Your task to perform on an android device: show emergency info Image 0: 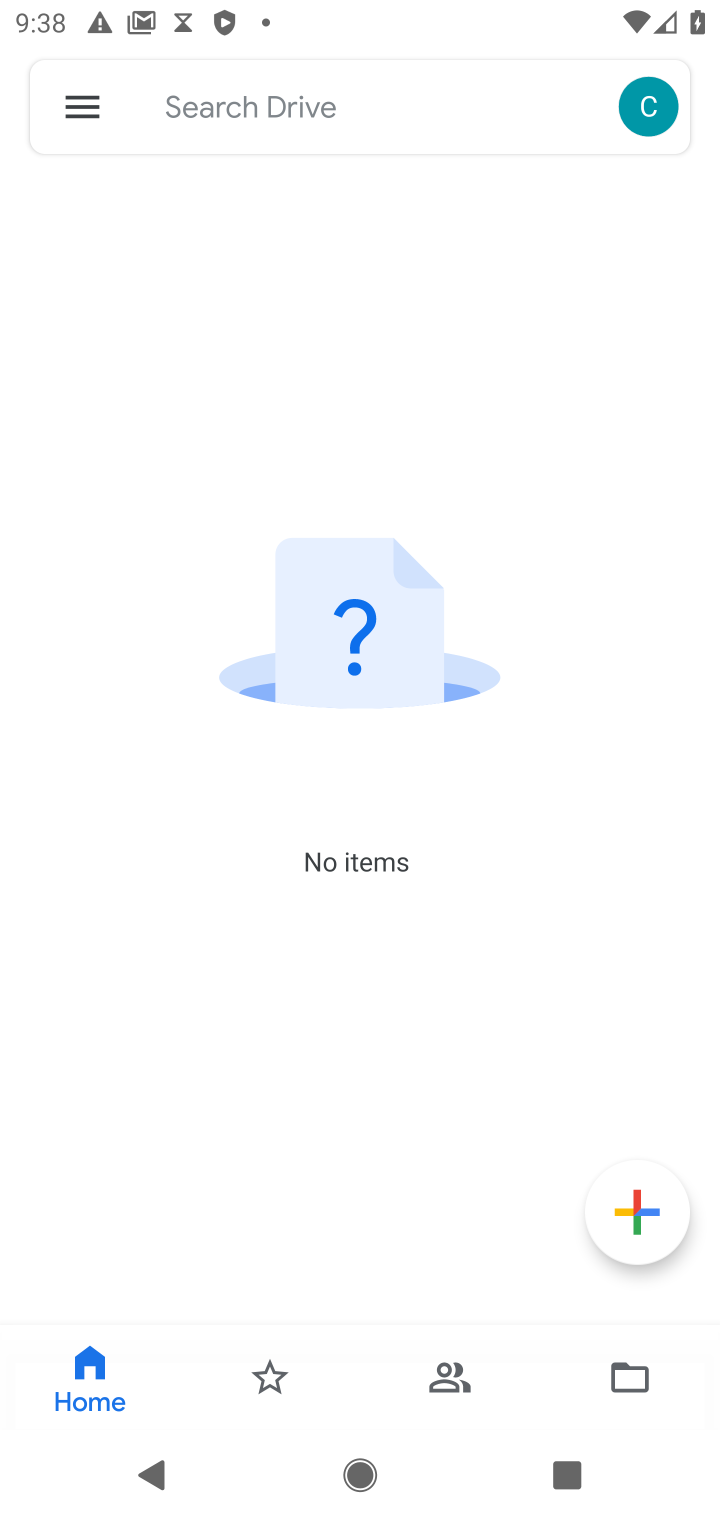
Step 0: press back button
Your task to perform on an android device: show emergency info Image 1: 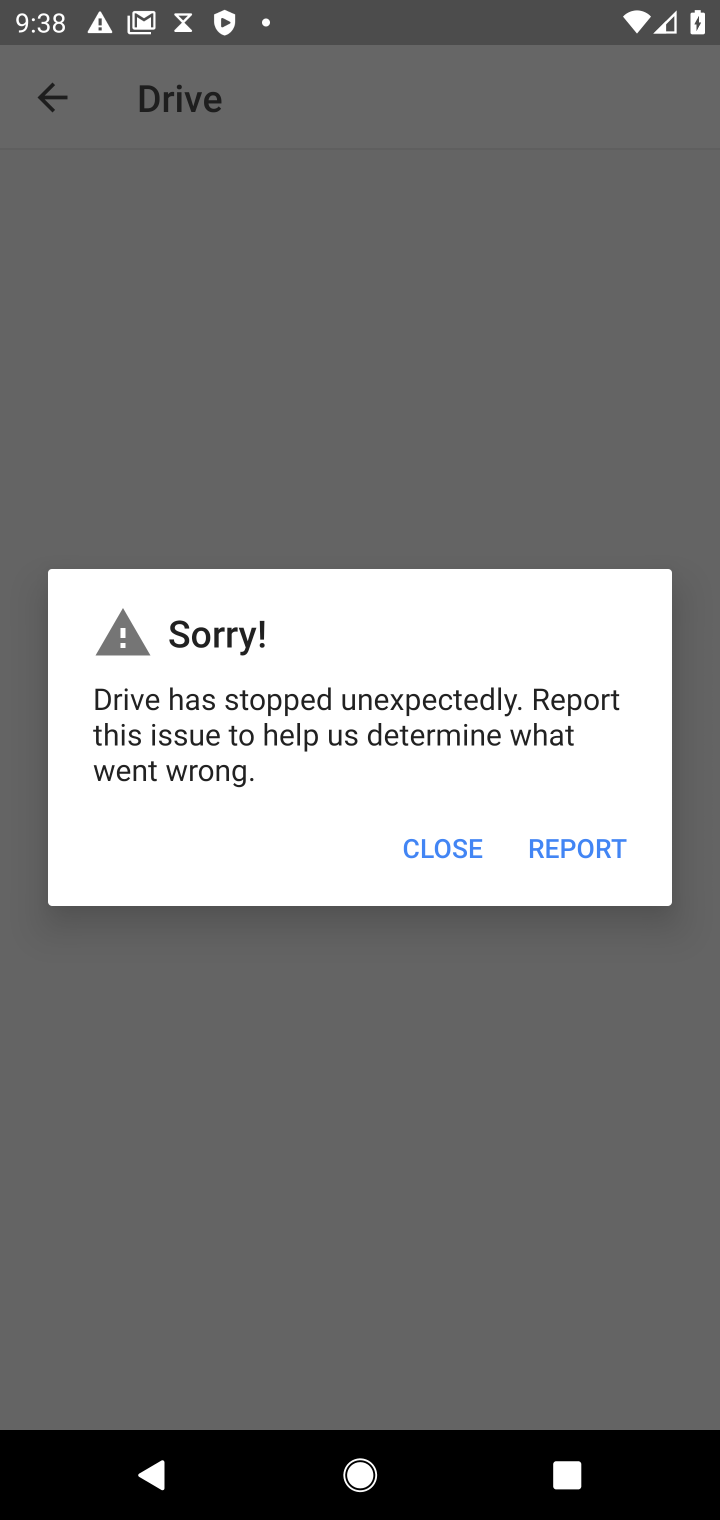
Step 1: press home button
Your task to perform on an android device: show emergency info Image 2: 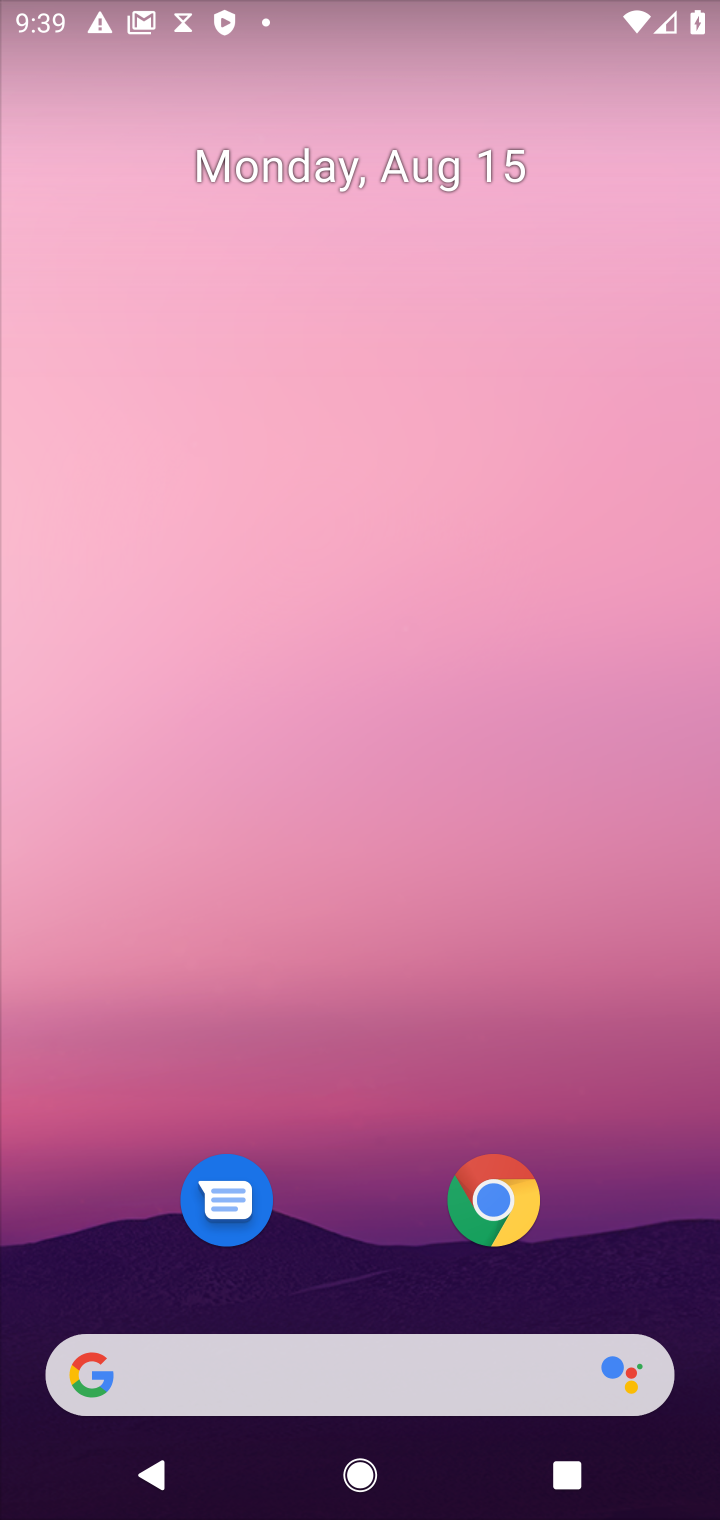
Step 2: drag from (357, 906) to (357, 63)
Your task to perform on an android device: show emergency info Image 3: 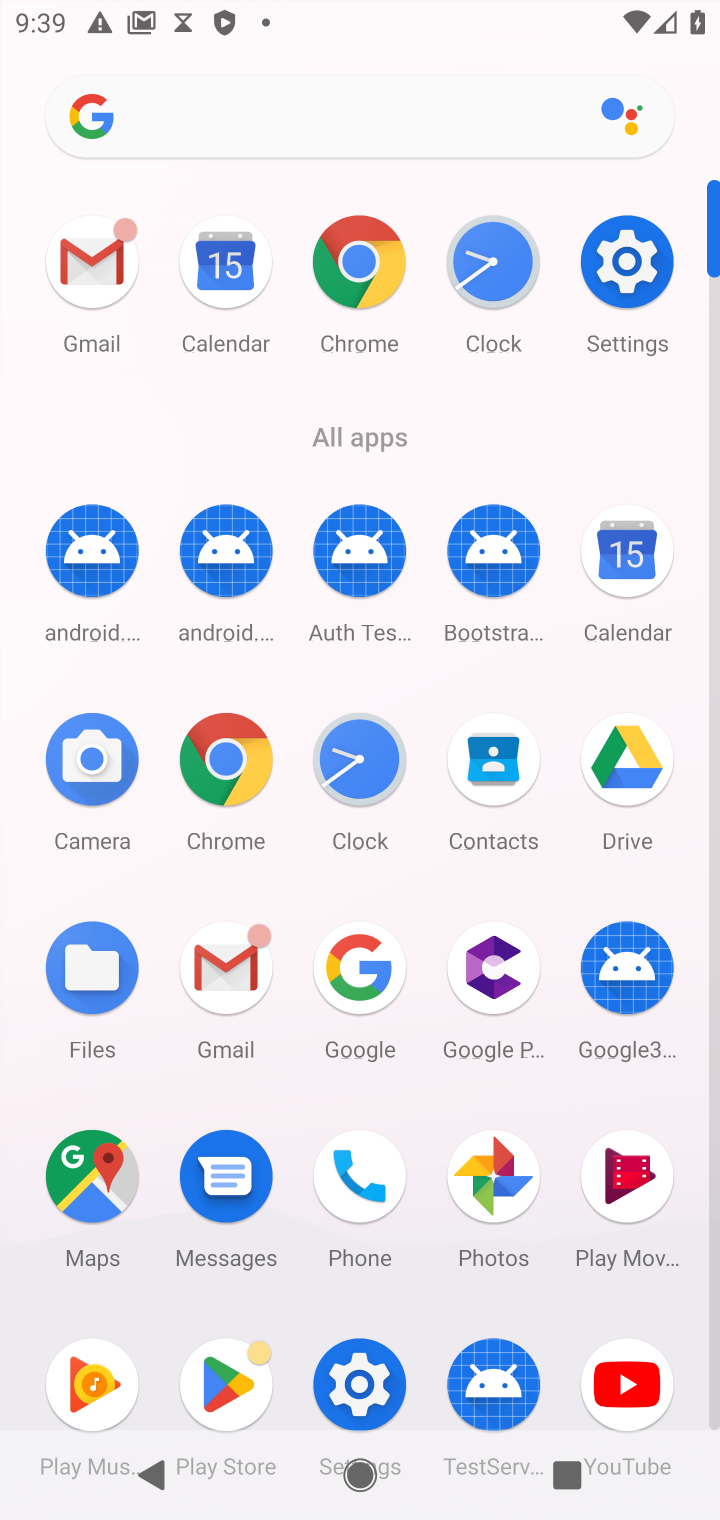
Step 3: click (604, 284)
Your task to perform on an android device: show emergency info Image 4: 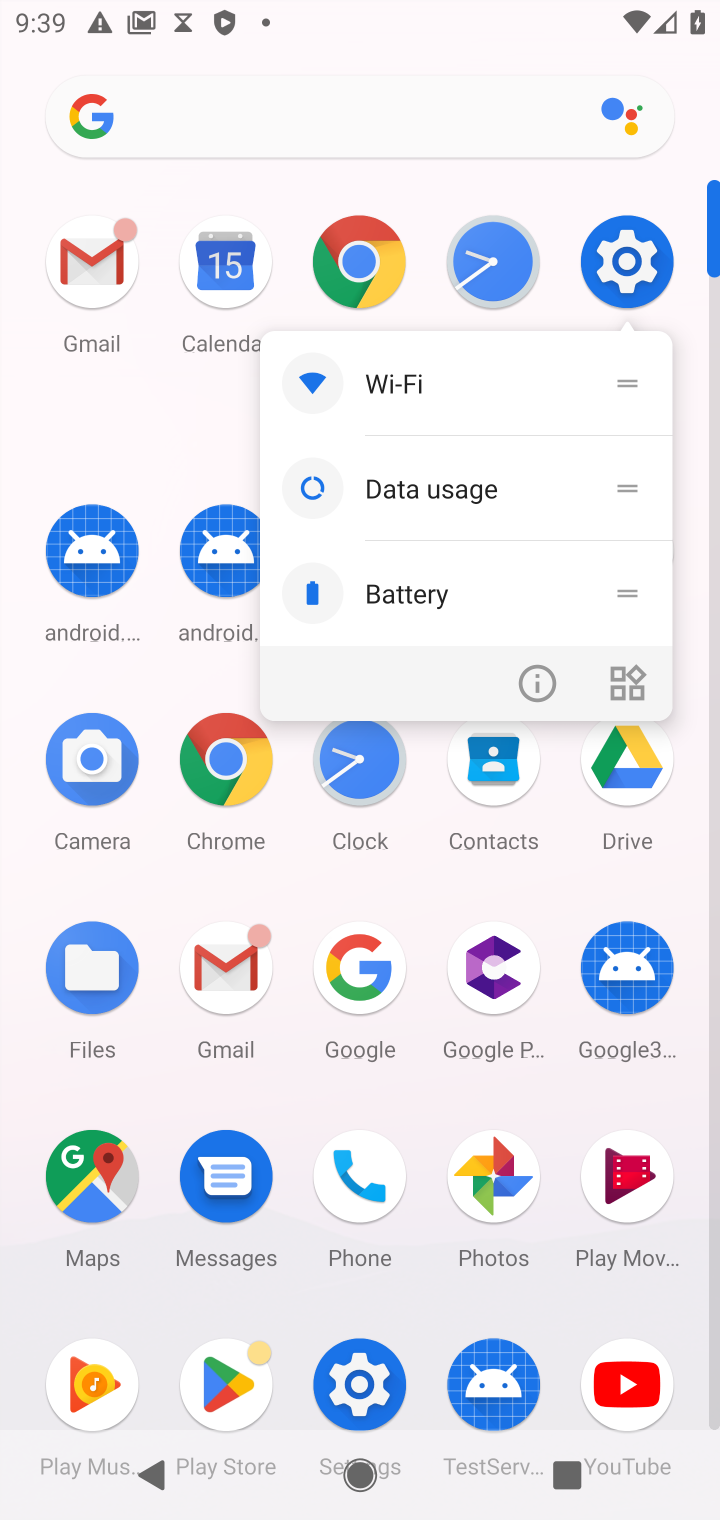
Step 4: click (604, 284)
Your task to perform on an android device: show emergency info Image 5: 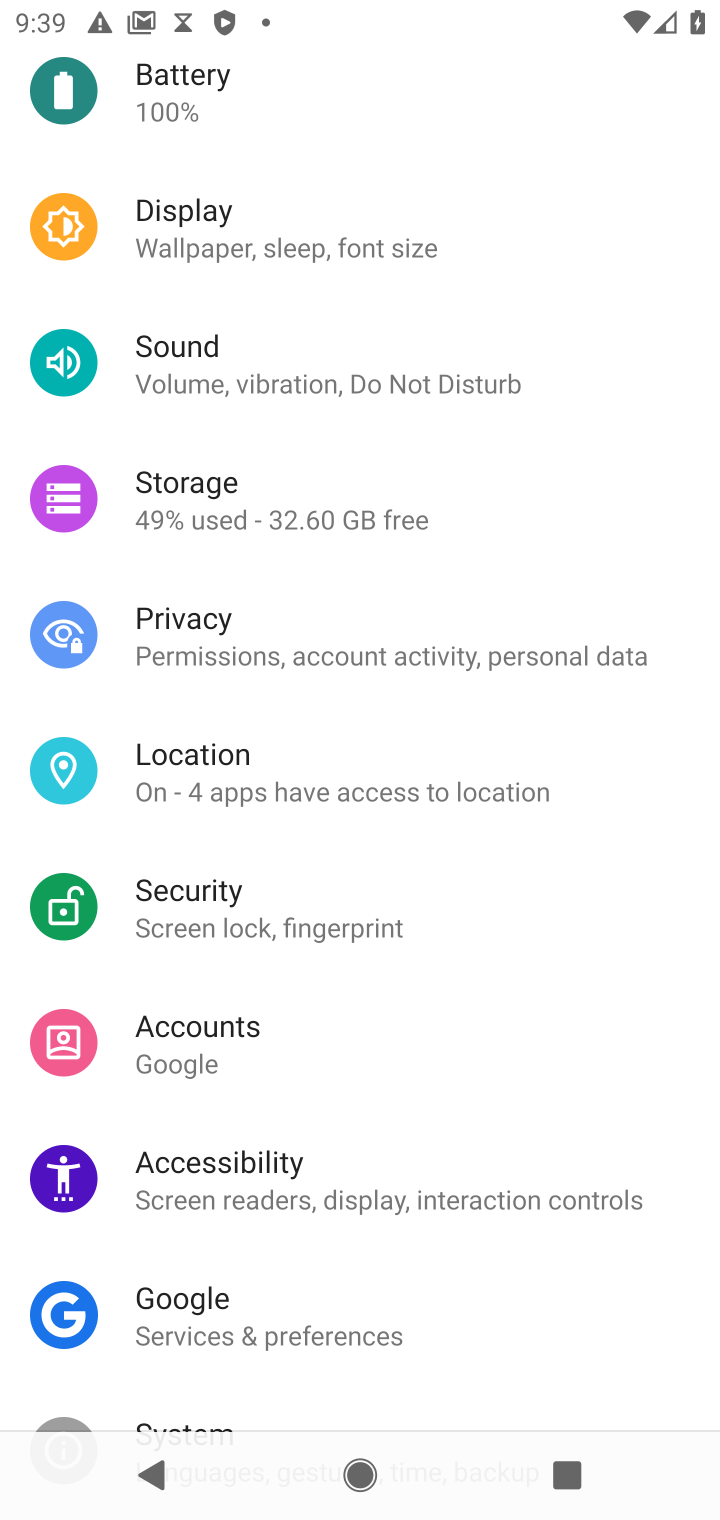
Step 5: drag from (361, 1261) to (366, 161)
Your task to perform on an android device: show emergency info Image 6: 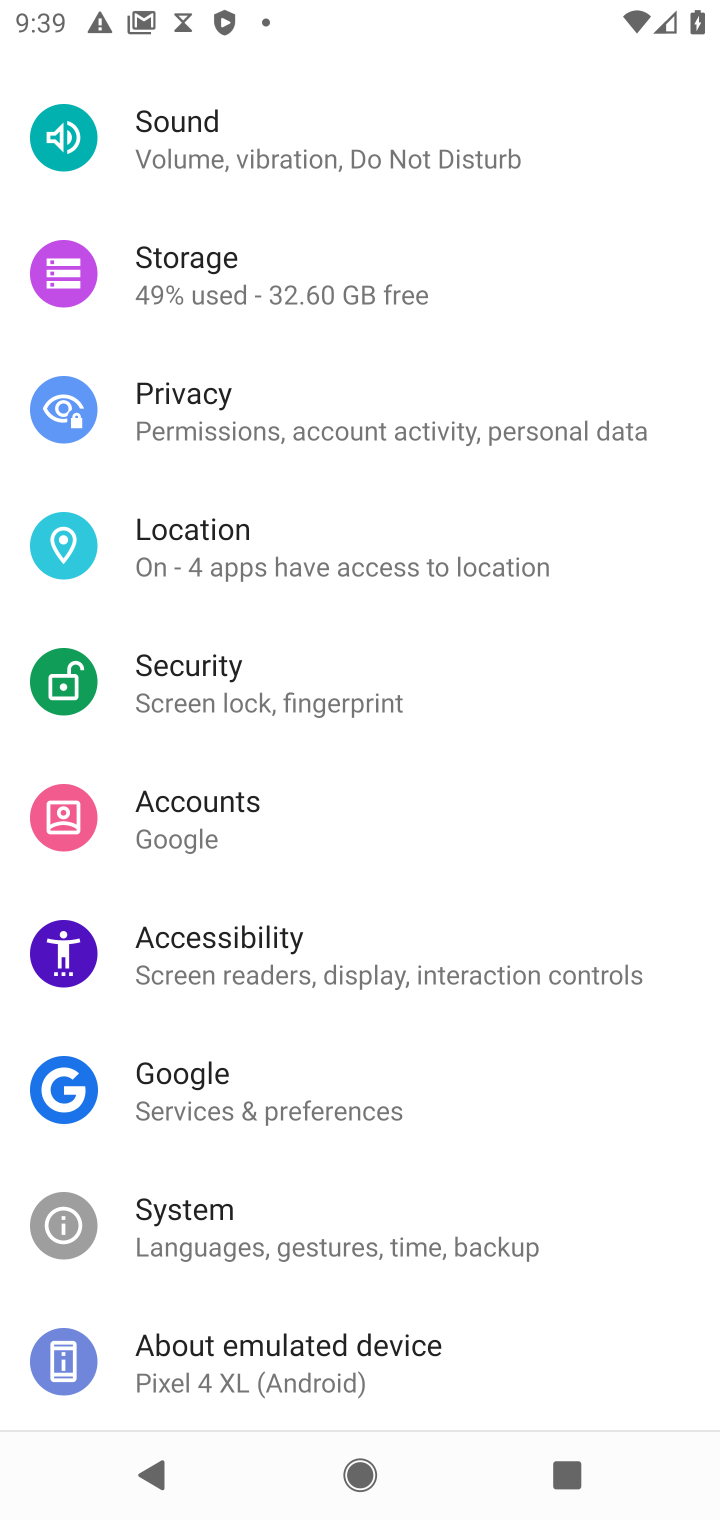
Step 6: drag from (401, 1245) to (368, 427)
Your task to perform on an android device: show emergency info Image 7: 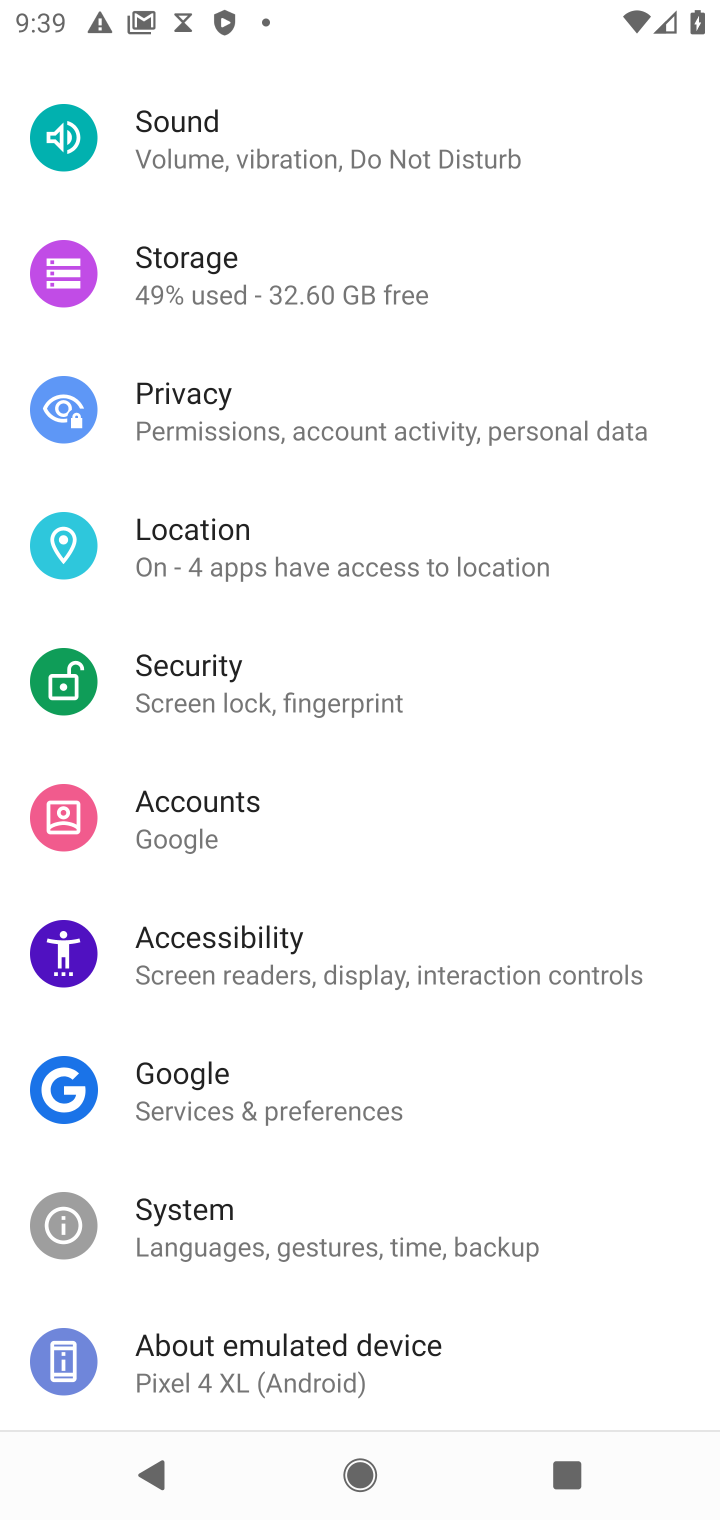
Step 7: click (419, 1339)
Your task to perform on an android device: show emergency info Image 8: 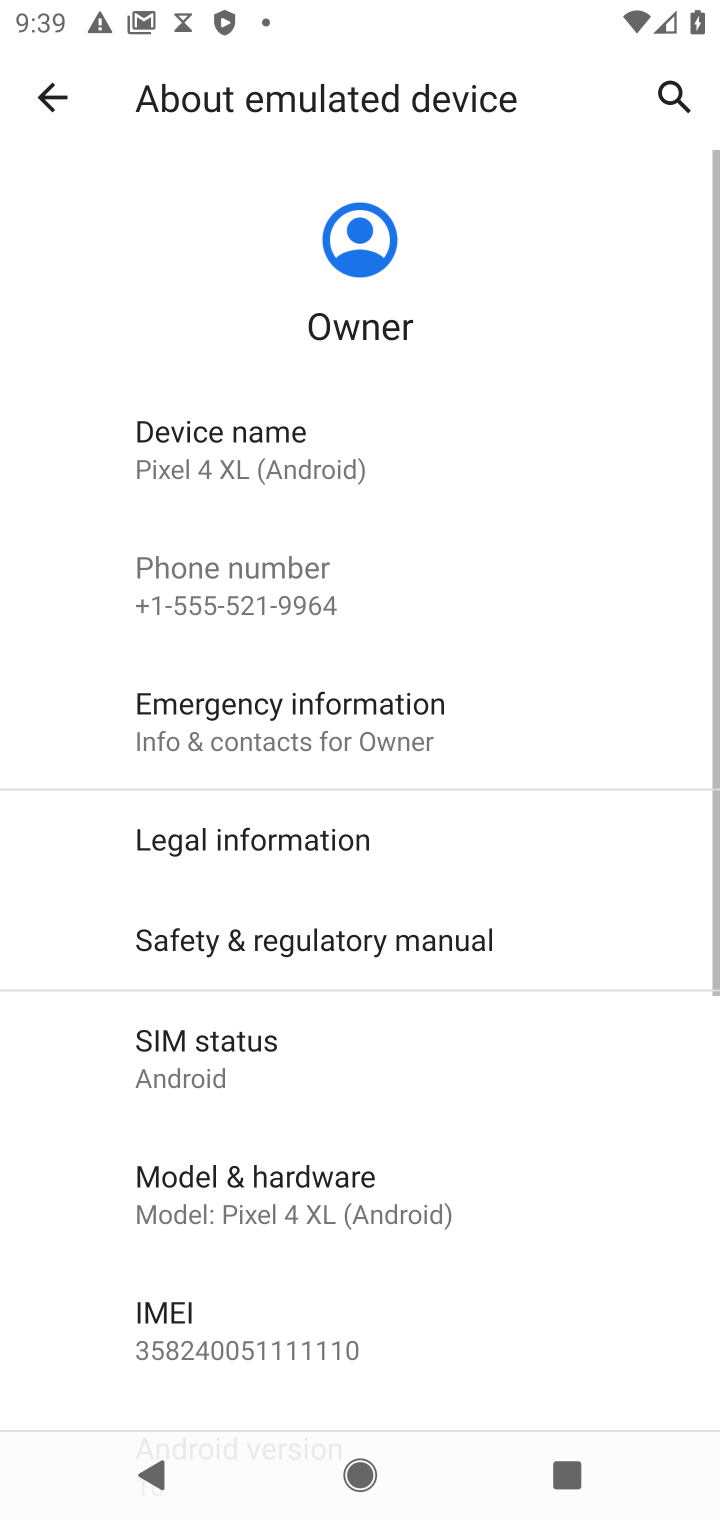
Step 8: click (315, 723)
Your task to perform on an android device: show emergency info Image 9: 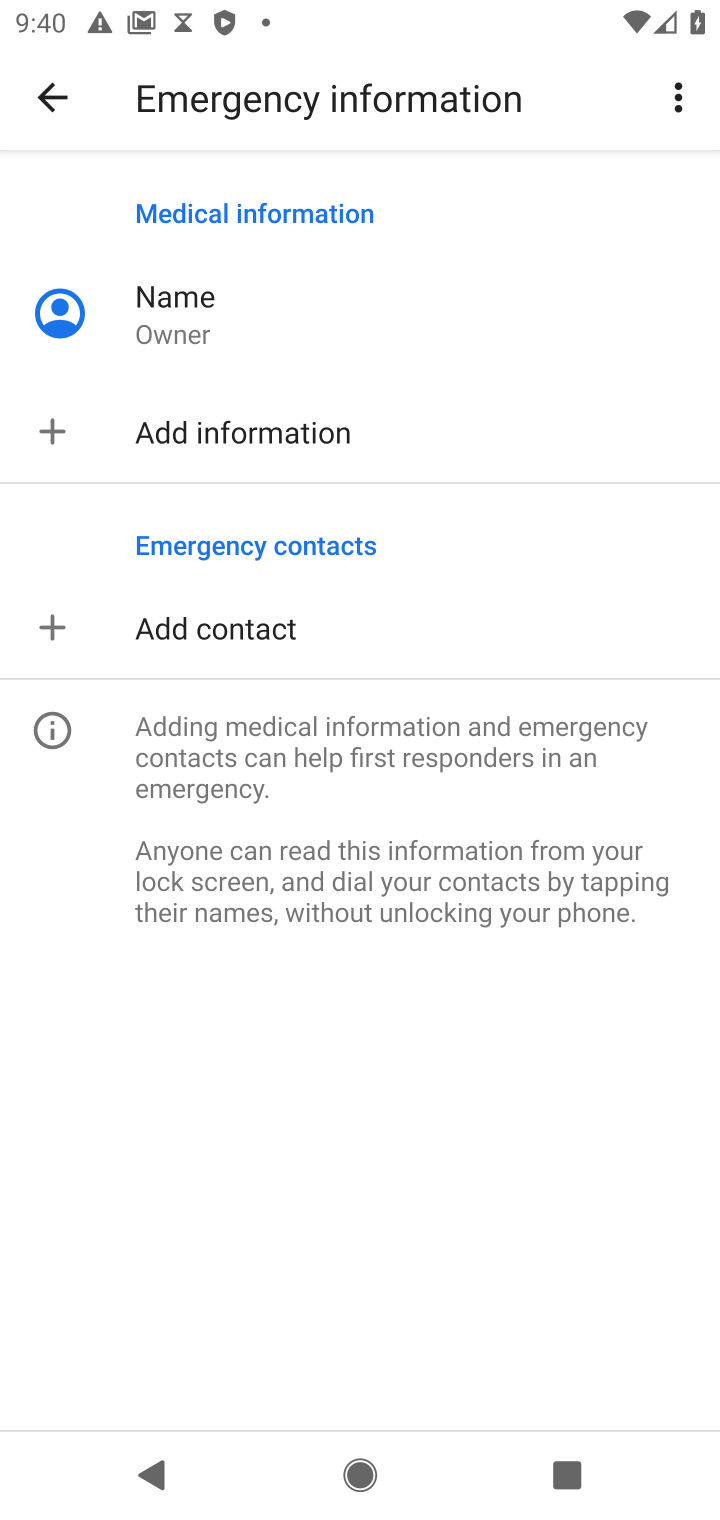
Step 9: task complete